Your task to perform on an android device: move a message to another label in the gmail app Image 0: 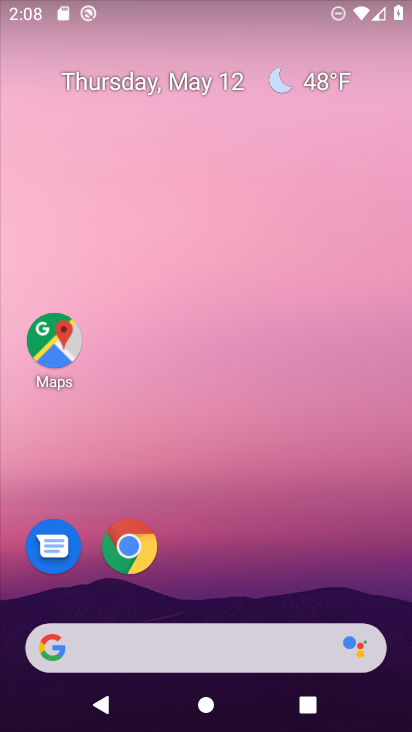
Step 0: drag from (303, 670) to (253, 333)
Your task to perform on an android device: move a message to another label in the gmail app Image 1: 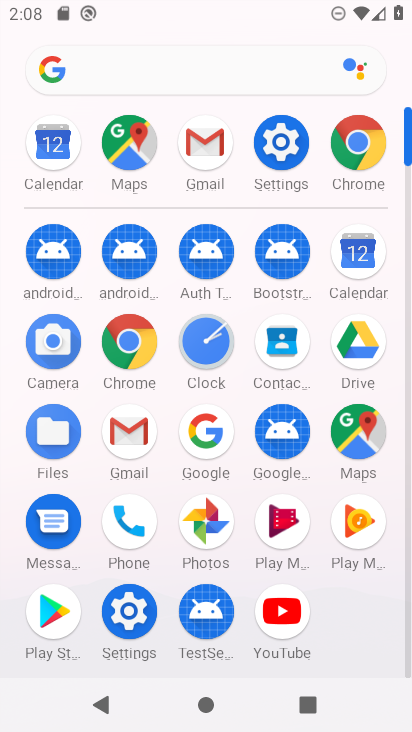
Step 1: click (131, 422)
Your task to perform on an android device: move a message to another label in the gmail app Image 2: 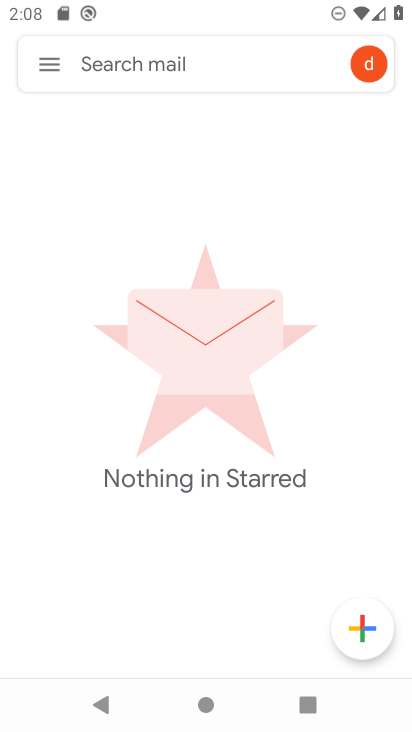
Step 2: click (26, 69)
Your task to perform on an android device: move a message to another label in the gmail app Image 3: 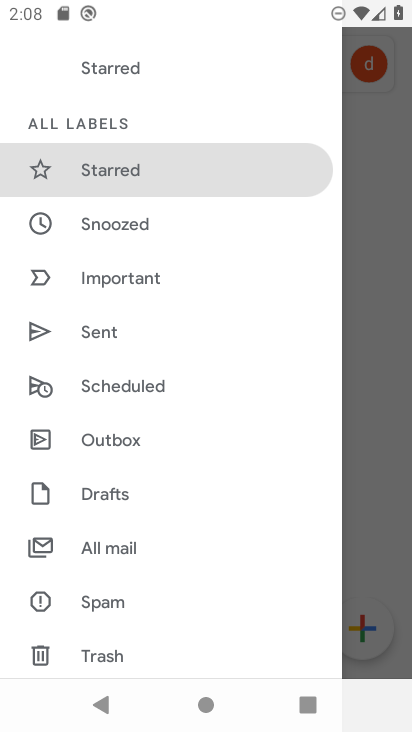
Step 3: drag from (189, 590) to (193, 346)
Your task to perform on an android device: move a message to another label in the gmail app Image 4: 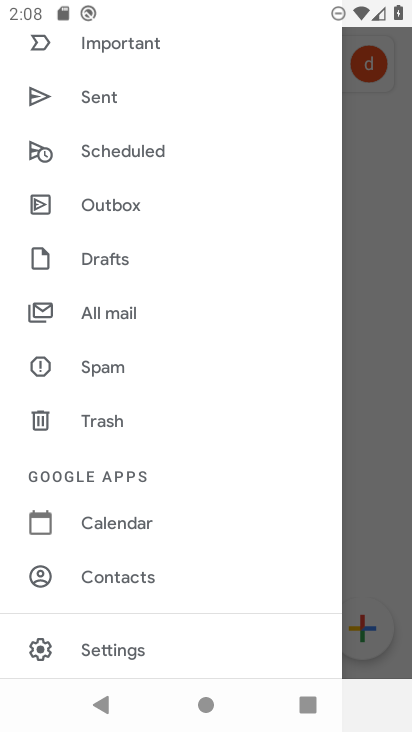
Step 4: click (125, 649)
Your task to perform on an android device: move a message to another label in the gmail app Image 5: 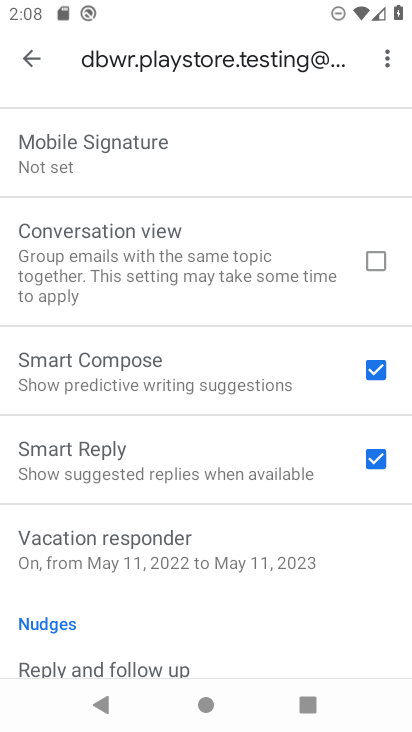
Step 5: drag from (90, 299) to (166, 557)
Your task to perform on an android device: move a message to another label in the gmail app Image 6: 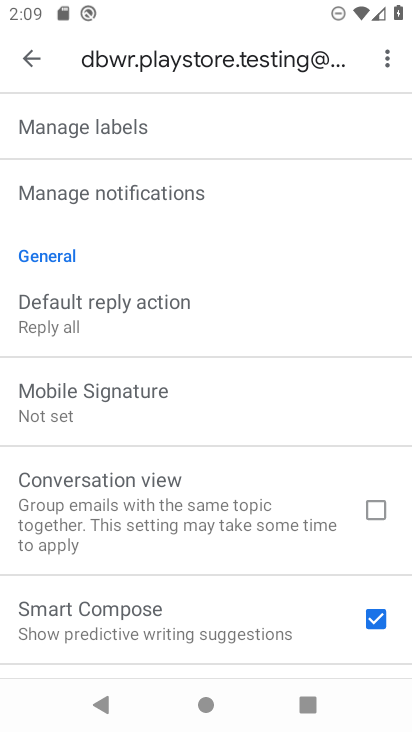
Step 6: click (122, 141)
Your task to perform on an android device: move a message to another label in the gmail app Image 7: 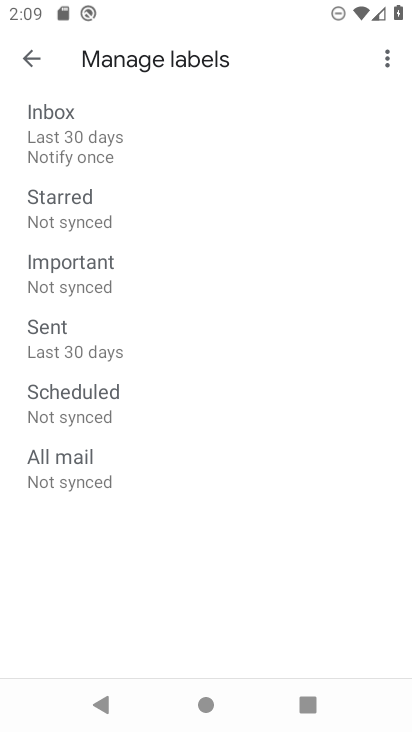
Step 7: click (149, 289)
Your task to perform on an android device: move a message to another label in the gmail app Image 8: 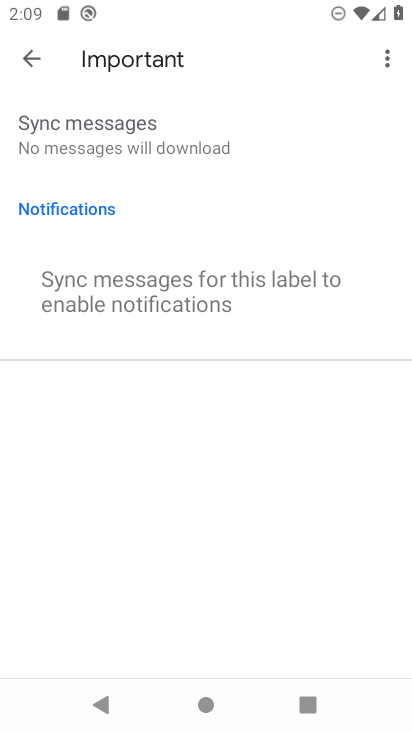
Step 8: task complete